Your task to perform on an android device: Open wifi settings Image 0: 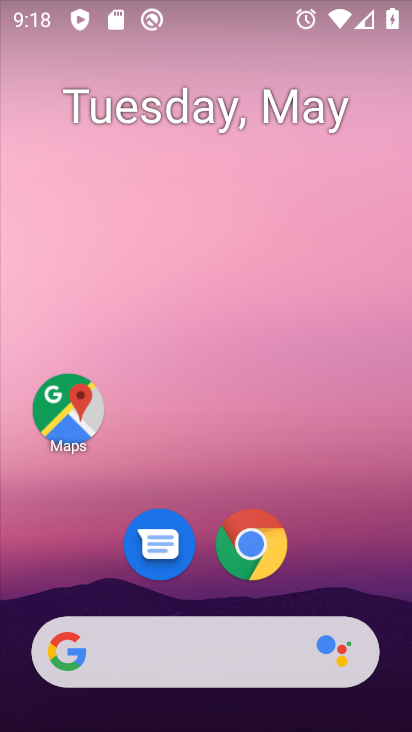
Step 0: drag from (335, 592) to (285, 177)
Your task to perform on an android device: Open wifi settings Image 1: 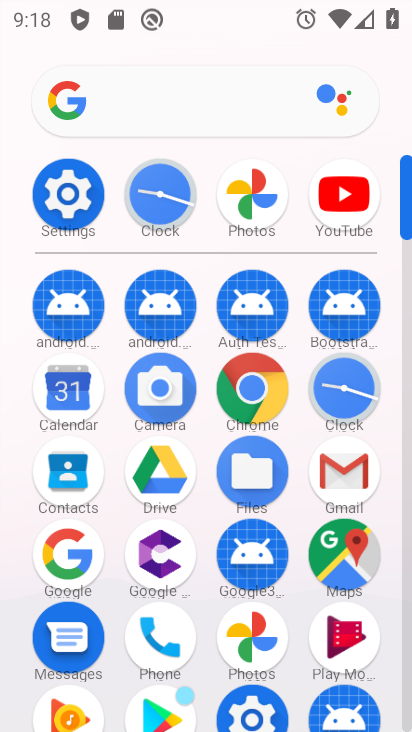
Step 1: click (90, 211)
Your task to perform on an android device: Open wifi settings Image 2: 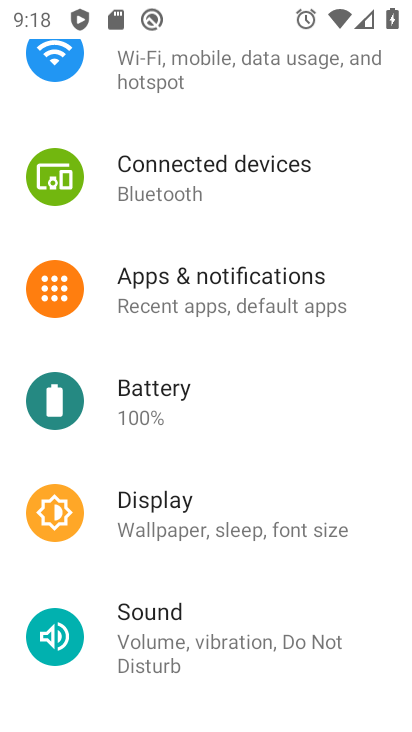
Step 2: drag from (228, 276) to (248, 586)
Your task to perform on an android device: Open wifi settings Image 3: 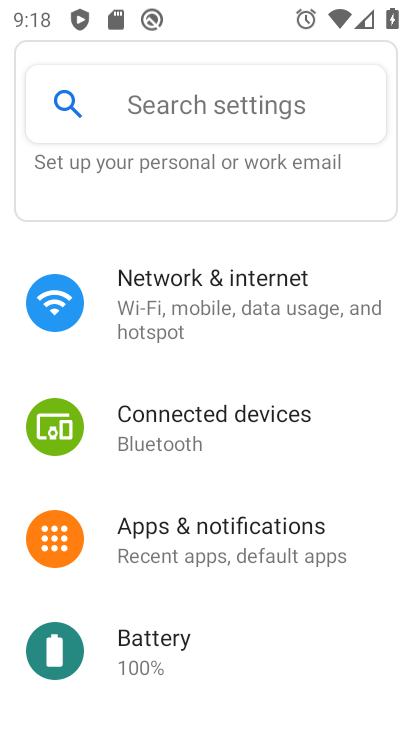
Step 3: click (212, 290)
Your task to perform on an android device: Open wifi settings Image 4: 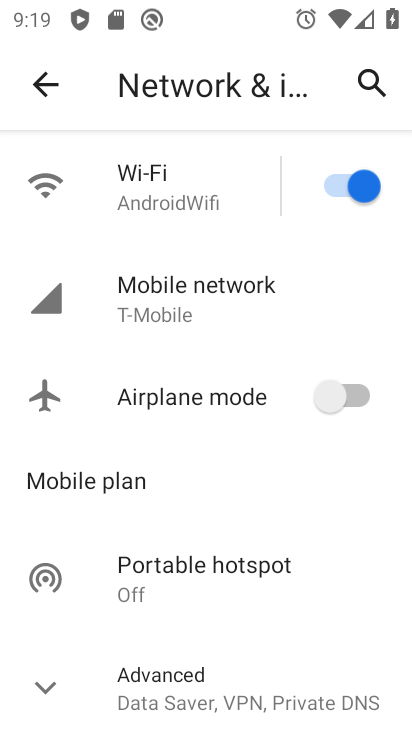
Step 4: click (210, 194)
Your task to perform on an android device: Open wifi settings Image 5: 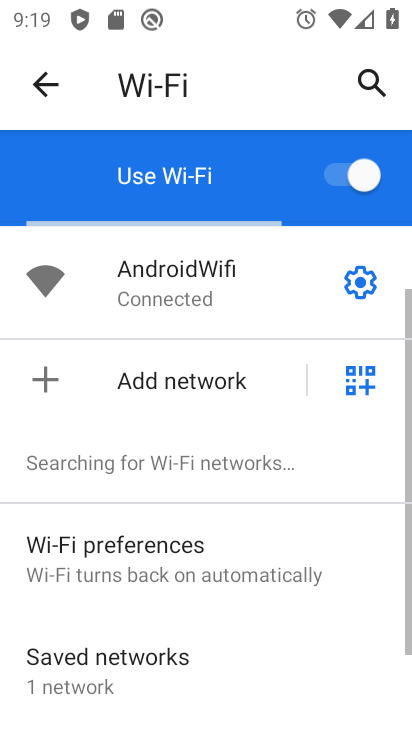
Step 5: click (369, 285)
Your task to perform on an android device: Open wifi settings Image 6: 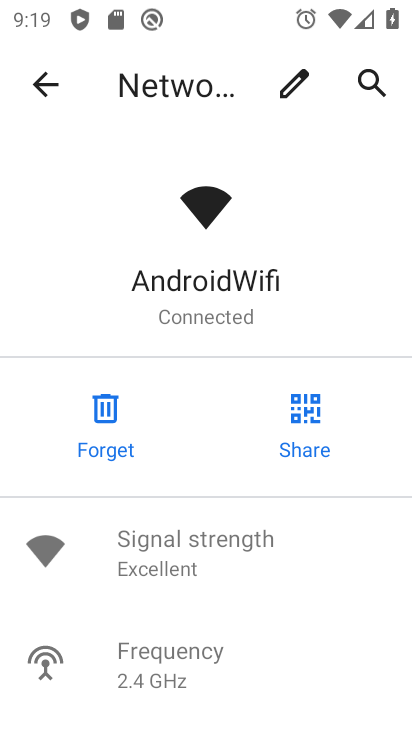
Step 6: task complete